Your task to perform on an android device: Is it going to rain tomorrow? Image 0: 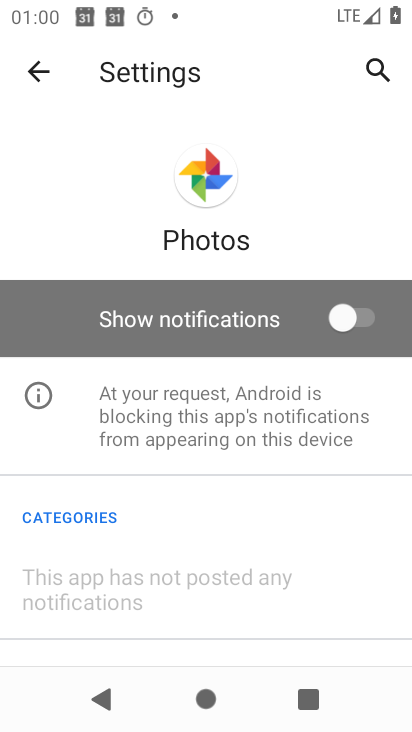
Step 0: press home button
Your task to perform on an android device: Is it going to rain tomorrow? Image 1: 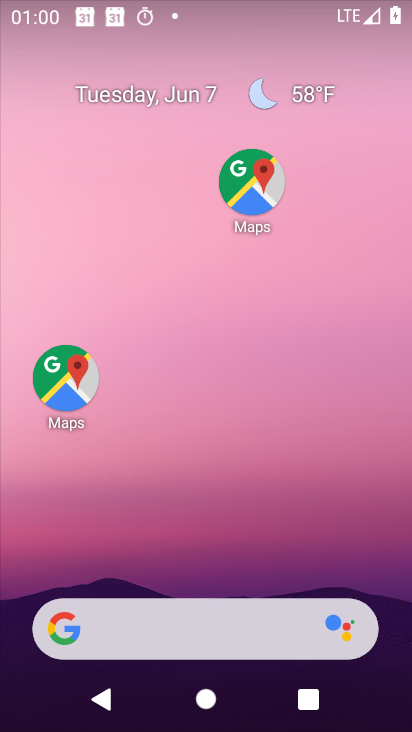
Step 1: drag from (164, 508) to (98, 26)
Your task to perform on an android device: Is it going to rain tomorrow? Image 2: 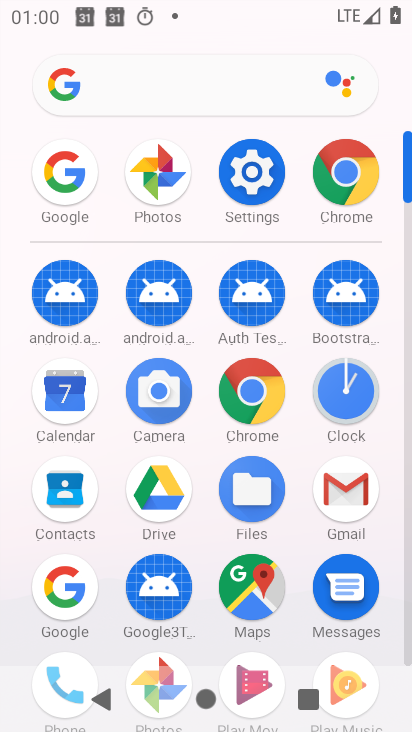
Step 2: click (72, 174)
Your task to perform on an android device: Is it going to rain tomorrow? Image 3: 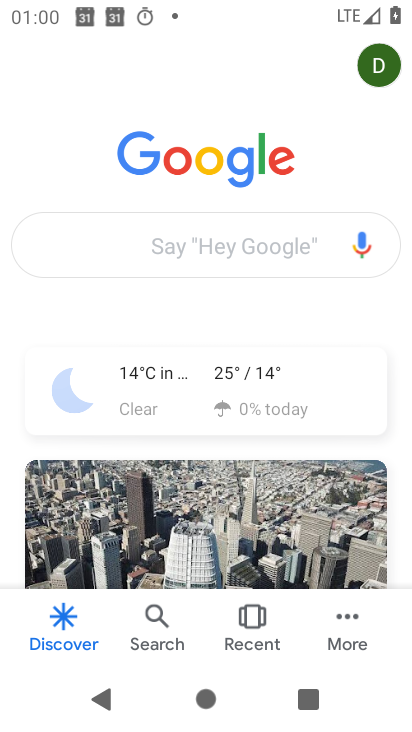
Step 3: click (157, 243)
Your task to perform on an android device: Is it going to rain tomorrow? Image 4: 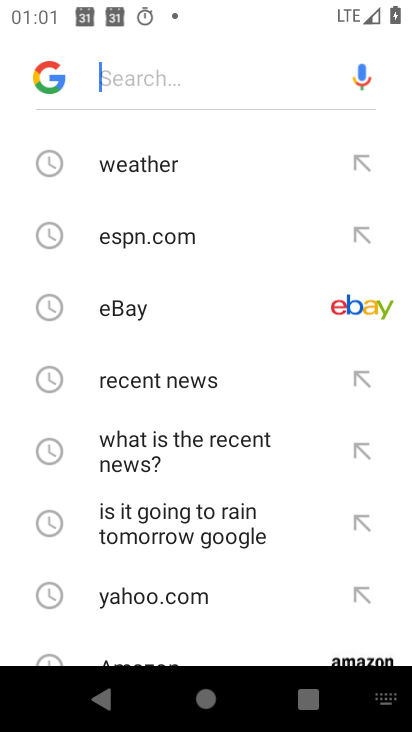
Step 4: type "is it going to rain tomorrow"
Your task to perform on an android device: Is it going to rain tomorrow? Image 5: 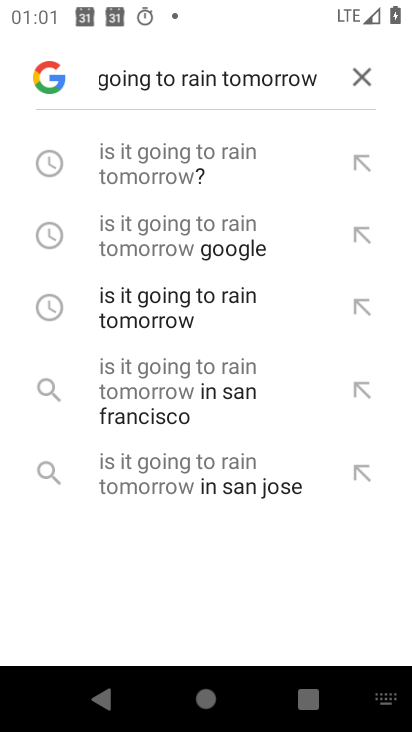
Step 5: click (184, 172)
Your task to perform on an android device: Is it going to rain tomorrow? Image 6: 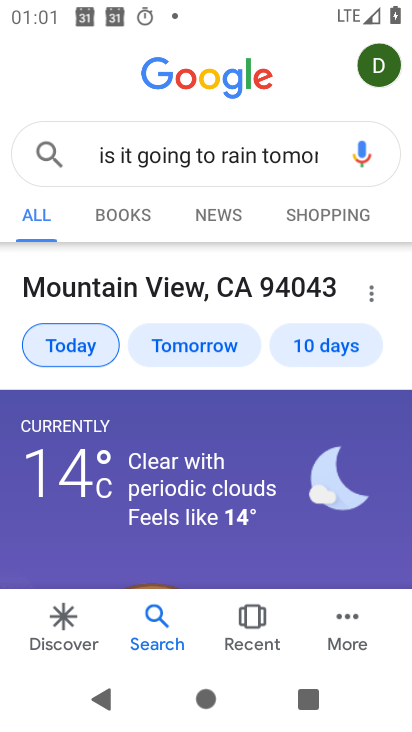
Step 6: task complete